Your task to perform on an android device: manage bookmarks in the chrome app Image 0: 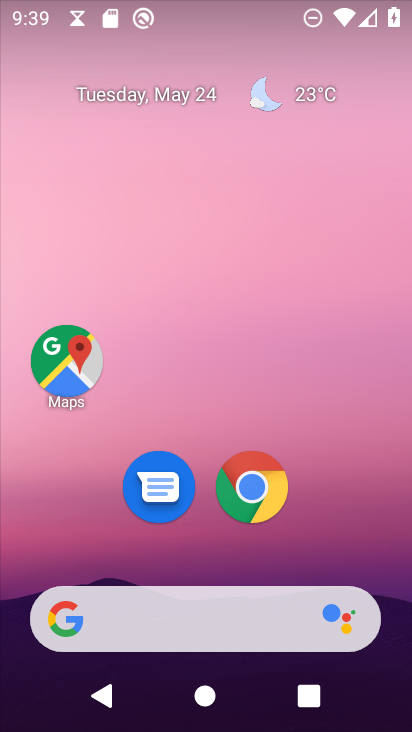
Step 0: click (257, 477)
Your task to perform on an android device: manage bookmarks in the chrome app Image 1: 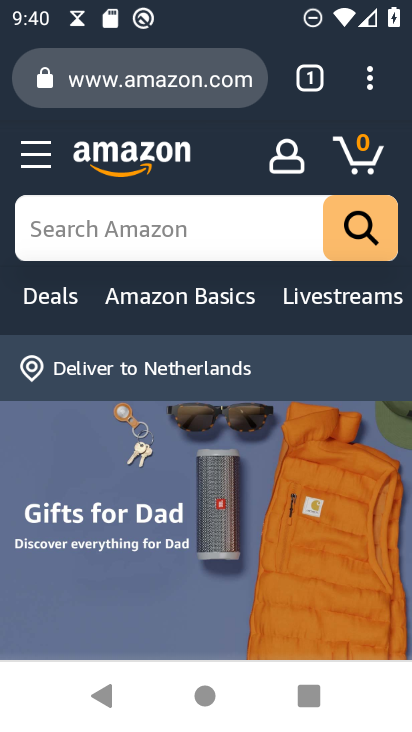
Step 1: click (375, 79)
Your task to perform on an android device: manage bookmarks in the chrome app Image 2: 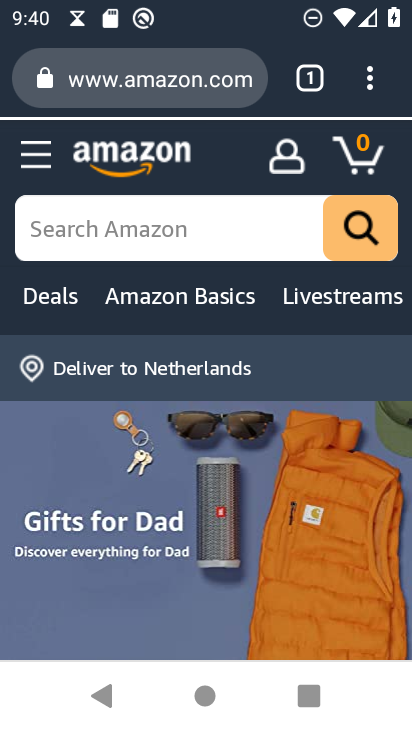
Step 2: click (365, 83)
Your task to perform on an android device: manage bookmarks in the chrome app Image 3: 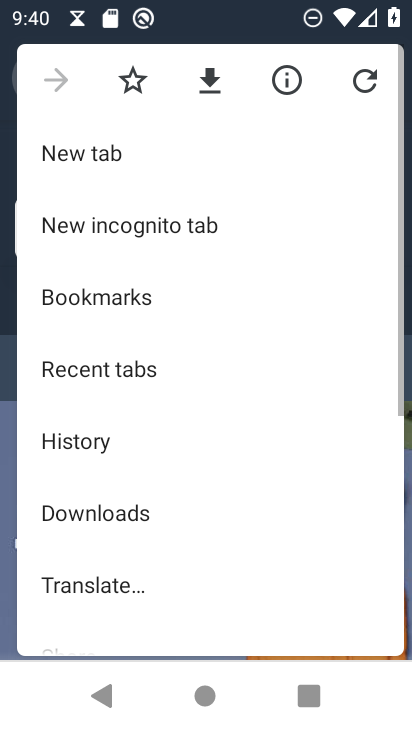
Step 3: drag from (17, 623) to (193, 99)
Your task to perform on an android device: manage bookmarks in the chrome app Image 4: 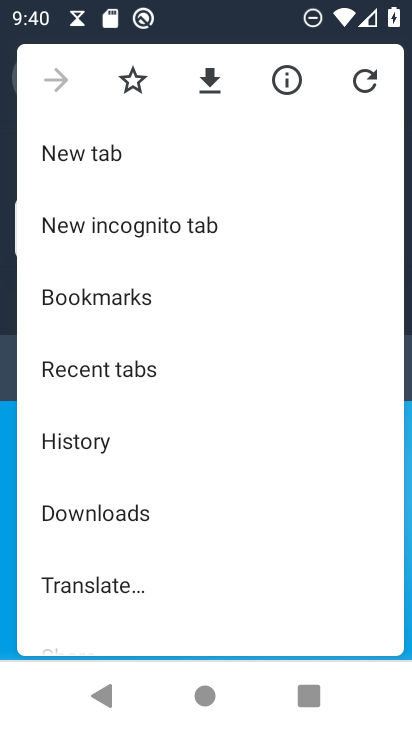
Step 4: drag from (22, 600) to (255, 157)
Your task to perform on an android device: manage bookmarks in the chrome app Image 5: 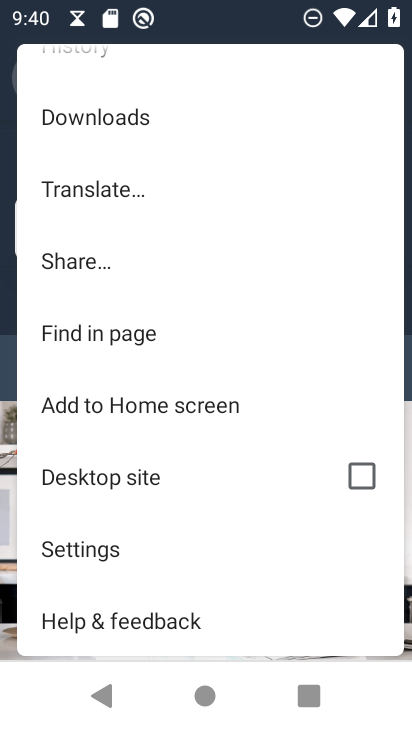
Step 5: click (63, 554)
Your task to perform on an android device: manage bookmarks in the chrome app Image 6: 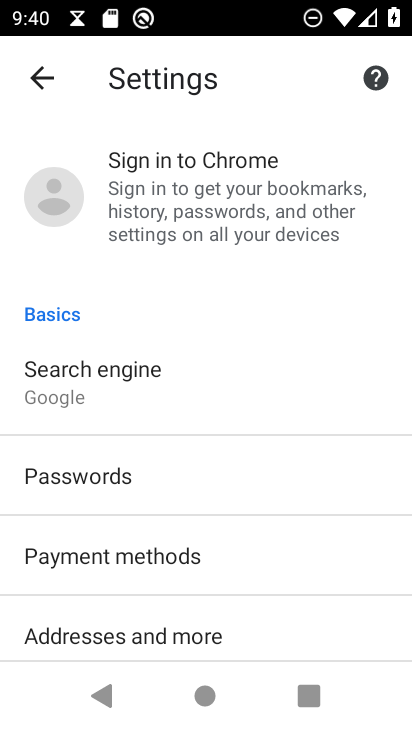
Step 6: drag from (18, 478) to (175, 198)
Your task to perform on an android device: manage bookmarks in the chrome app Image 7: 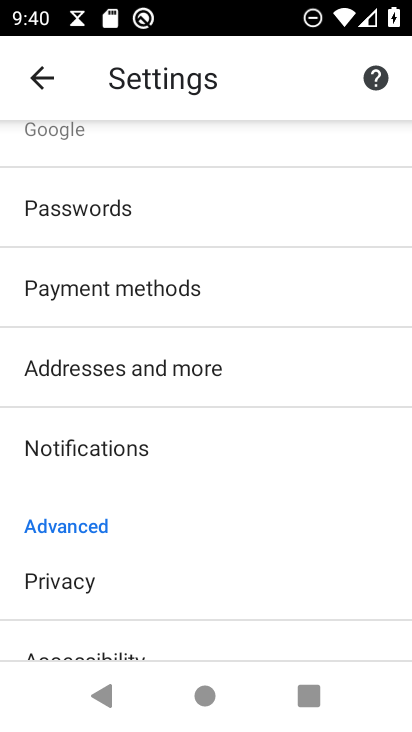
Step 7: press back button
Your task to perform on an android device: manage bookmarks in the chrome app Image 8: 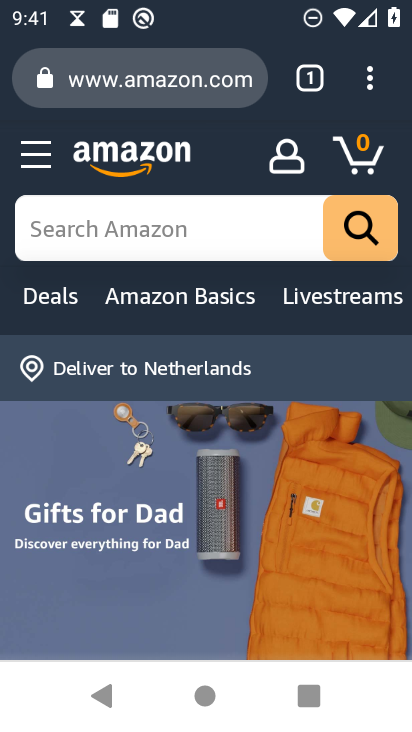
Step 8: click (366, 71)
Your task to perform on an android device: manage bookmarks in the chrome app Image 9: 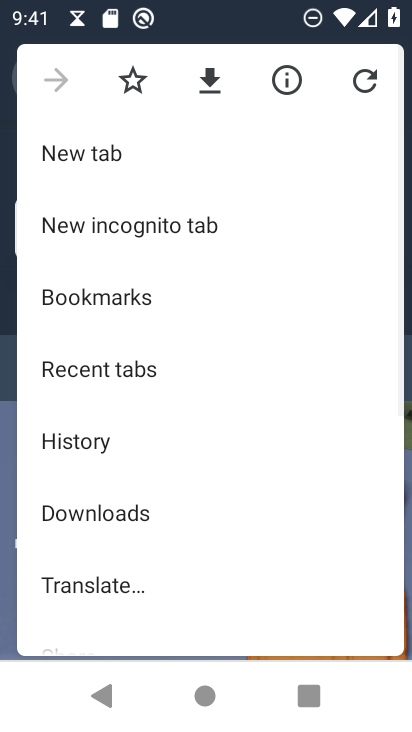
Step 9: click (106, 290)
Your task to perform on an android device: manage bookmarks in the chrome app Image 10: 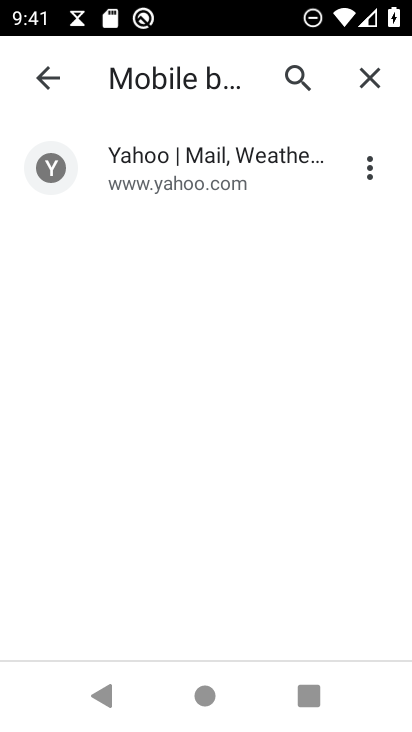
Step 10: task complete